Your task to perform on an android device: open device folders in google photos Image 0: 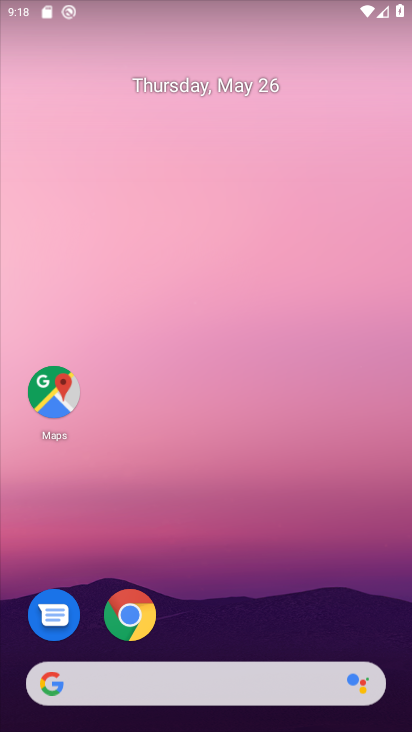
Step 0: drag from (122, 729) to (151, 75)
Your task to perform on an android device: open device folders in google photos Image 1: 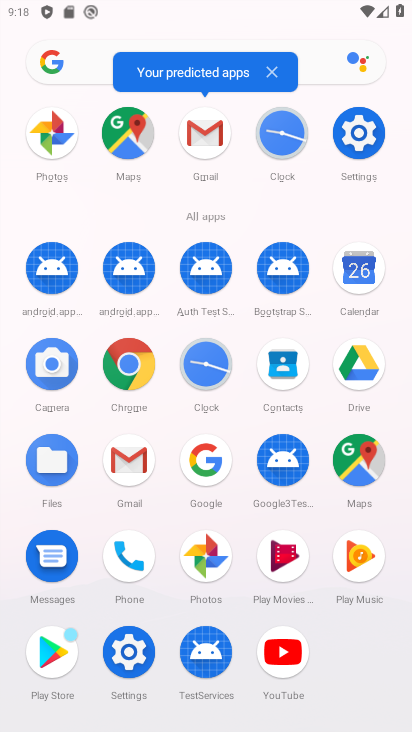
Step 1: click (214, 553)
Your task to perform on an android device: open device folders in google photos Image 2: 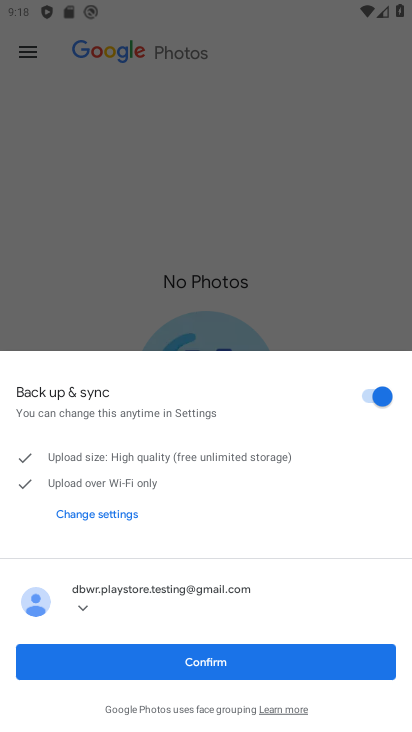
Step 2: click (235, 667)
Your task to perform on an android device: open device folders in google photos Image 3: 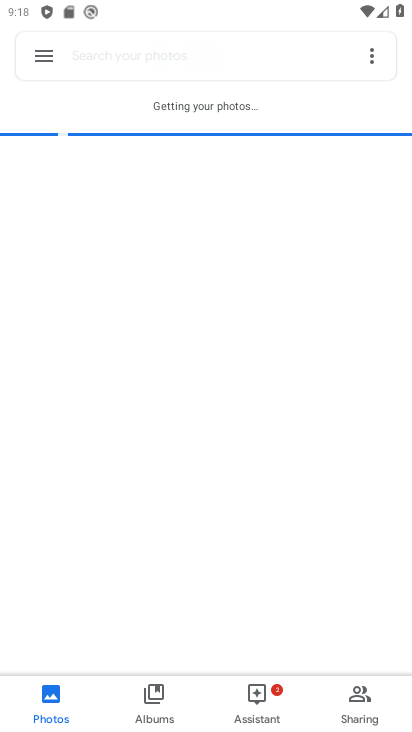
Step 3: click (369, 62)
Your task to perform on an android device: open device folders in google photos Image 4: 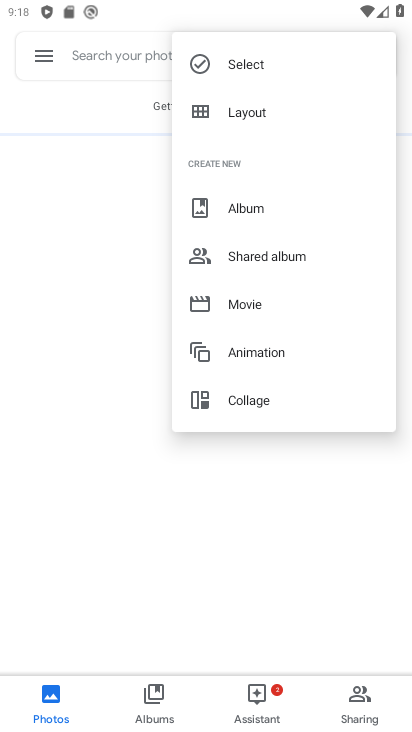
Step 4: click (46, 65)
Your task to perform on an android device: open device folders in google photos Image 5: 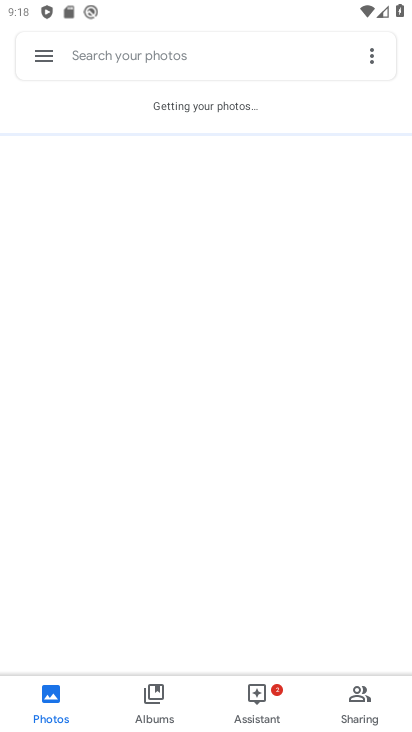
Step 5: click (33, 59)
Your task to perform on an android device: open device folders in google photos Image 6: 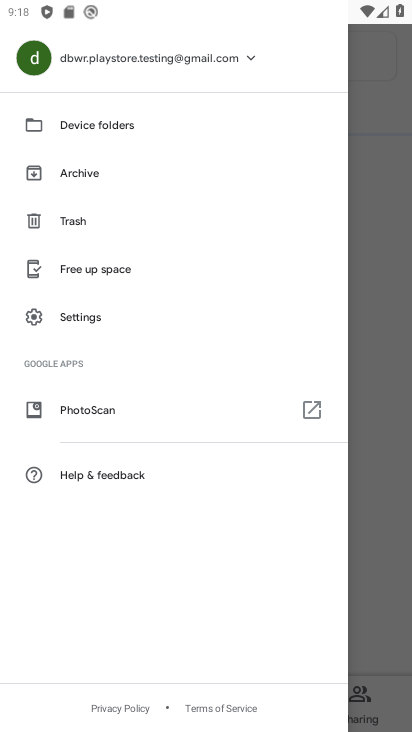
Step 6: click (110, 131)
Your task to perform on an android device: open device folders in google photos Image 7: 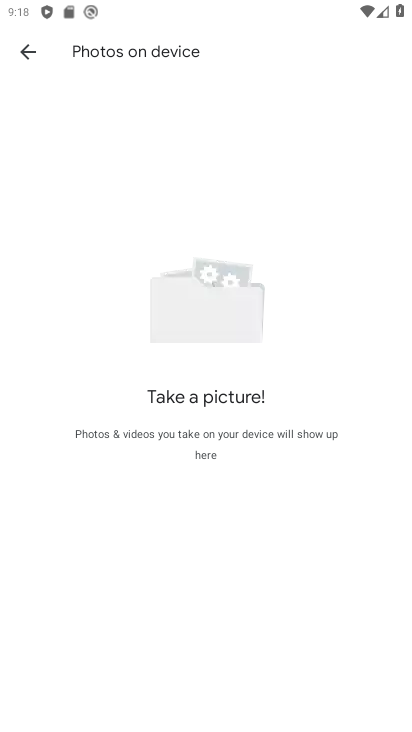
Step 7: task complete